Your task to perform on an android device: see sites visited before in the chrome app Image 0: 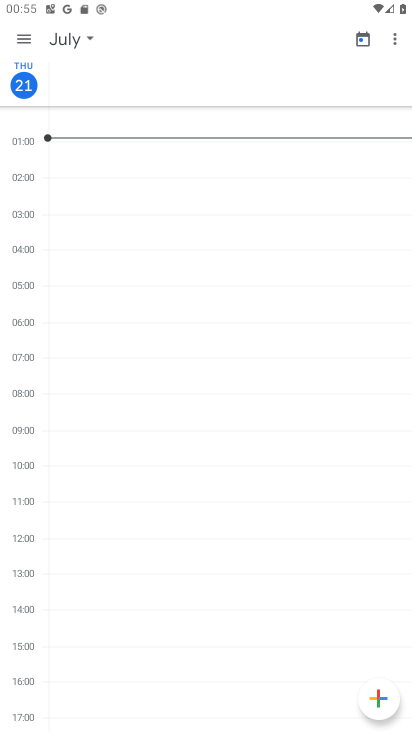
Step 0: press home button
Your task to perform on an android device: see sites visited before in the chrome app Image 1: 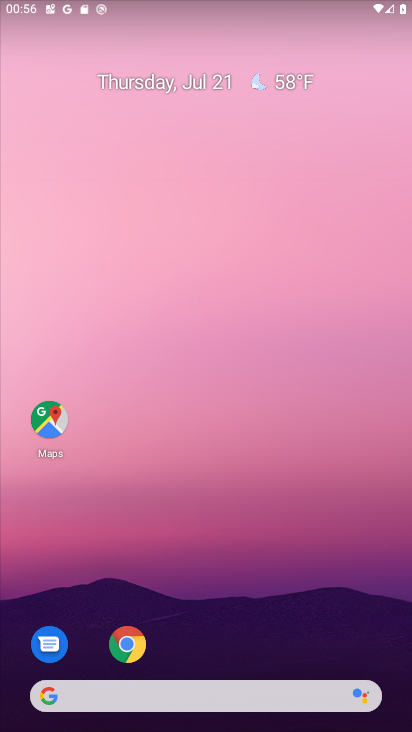
Step 1: click (133, 648)
Your task to perform on an android device: see sites visited before in the chrome app Image 2: 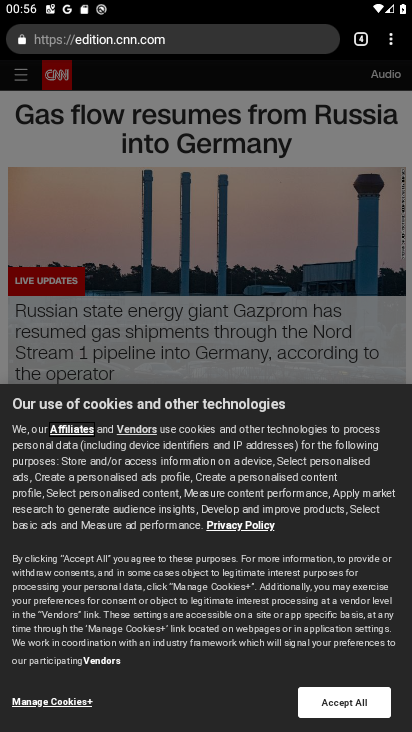
Step 2: click (391, 43)
Your task to perform on an android device: see sites visited before in the chrome app Image 3: 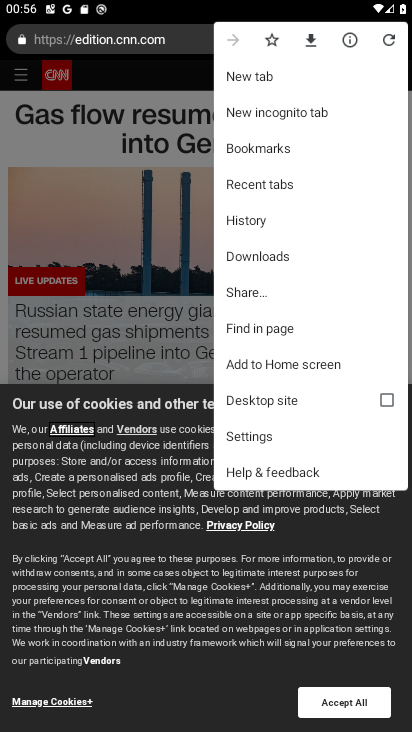
Step 3: click (299, 175)
Your task to perform on an android device: see sites visited before in the chrome app Image 4: 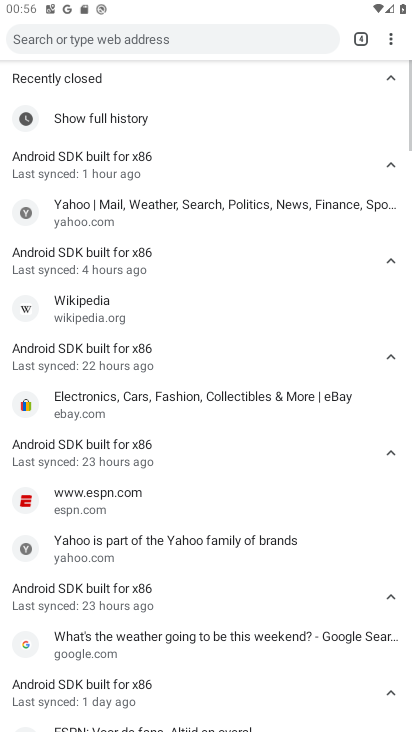
Step 4: task complete